Your task to perform on an android device: open app "WhatsApp Messenger" Image 0: 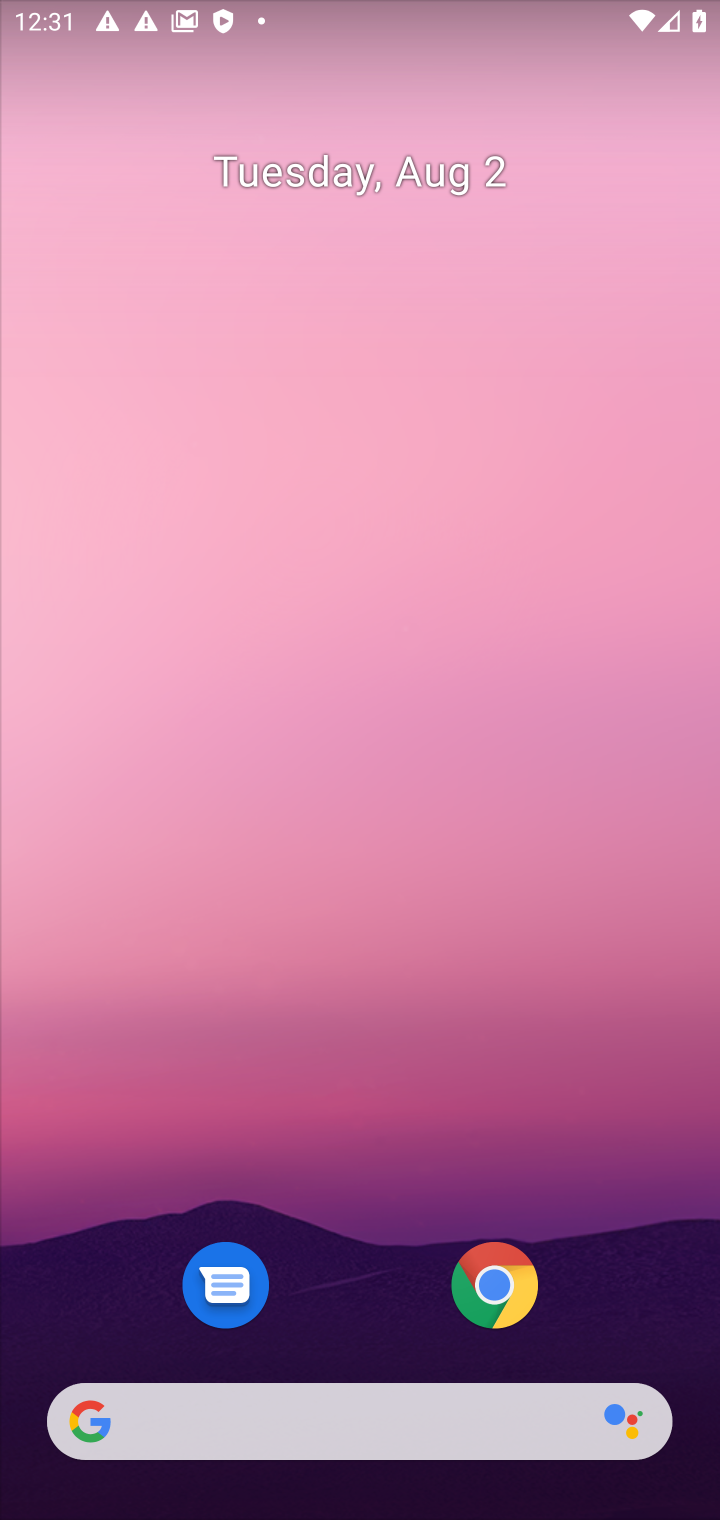
Step 0: drag from (571, 804) to (567, 229)
Your task to perform on an android device: open app "WhatsApp Messenger" Image 1: 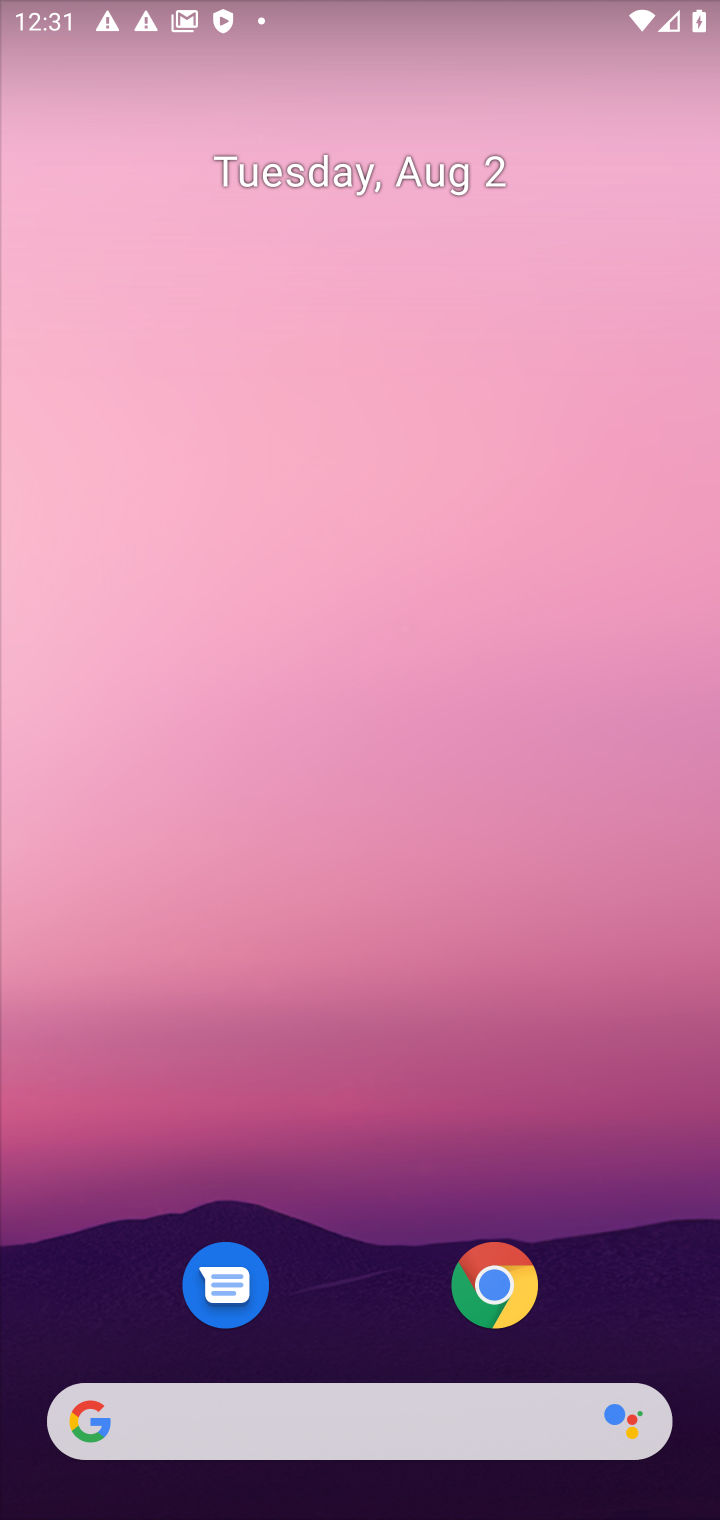
Step 1: drag from (336, 1333) to (319, 330)
Your task to perform on an android device: open app "WhatsApp Messenger" Image 2: 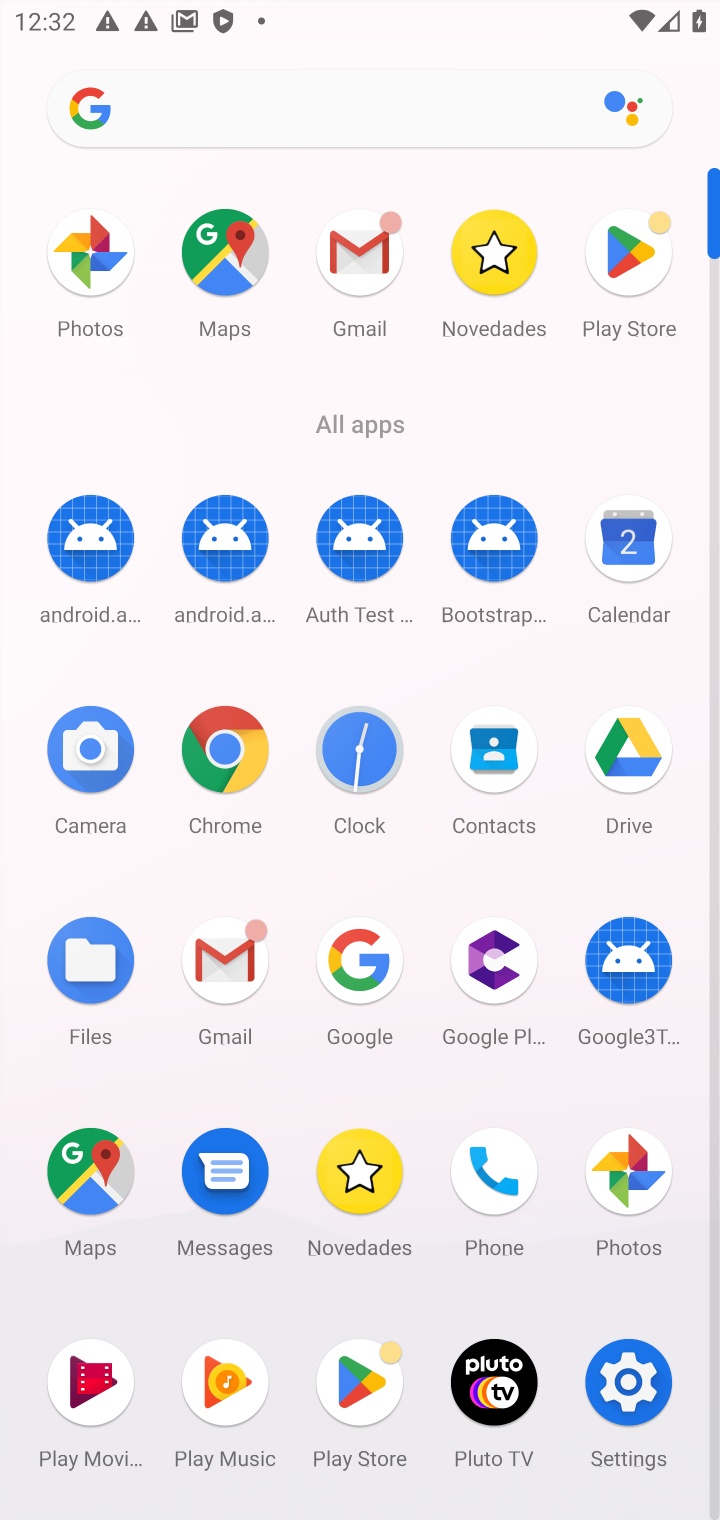
Step 2: click (369, 1394)
Your task to perform on an android device: open app "WhatsApp Messenger" Image 3: 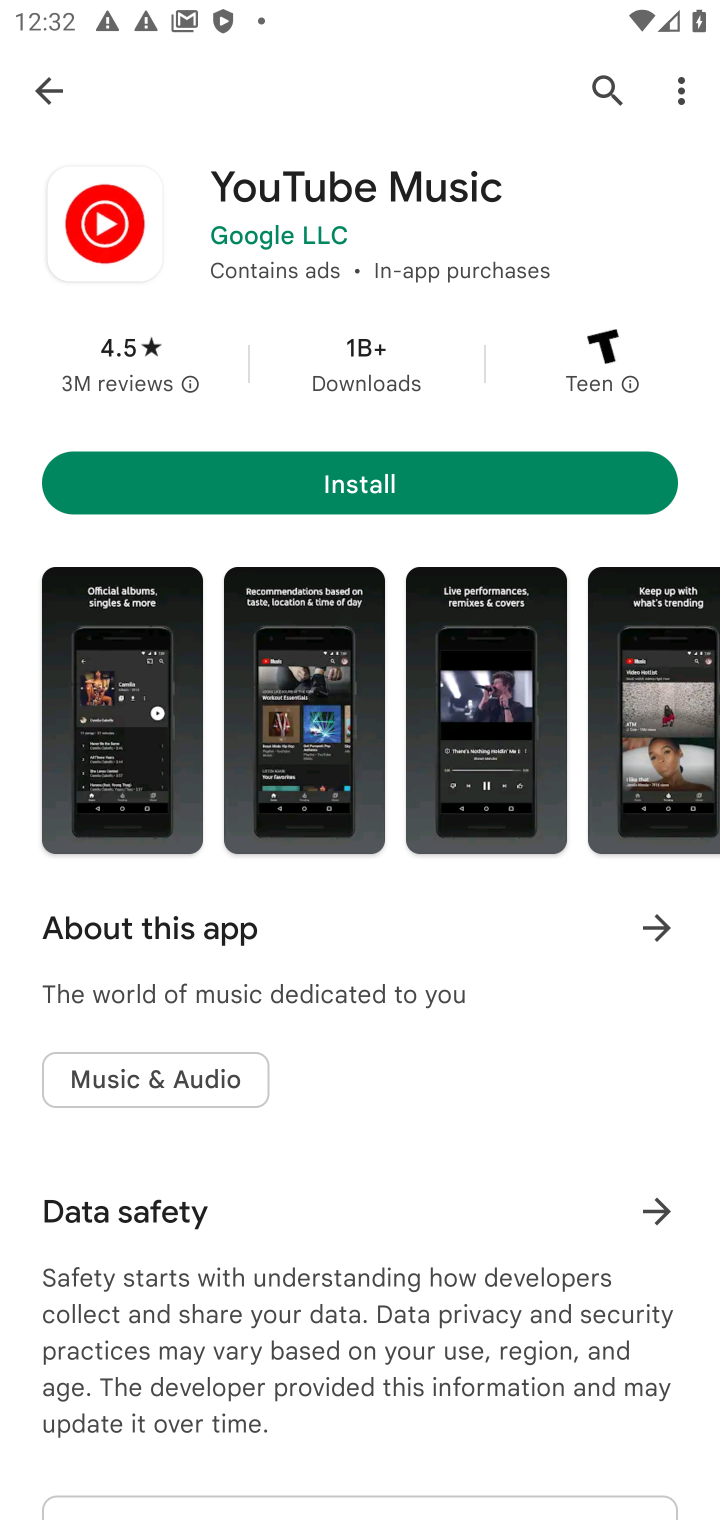
Step 3: click (606, 78)
Your task to perform on an android device: open app "WhatsApp Messenger" Image 4: 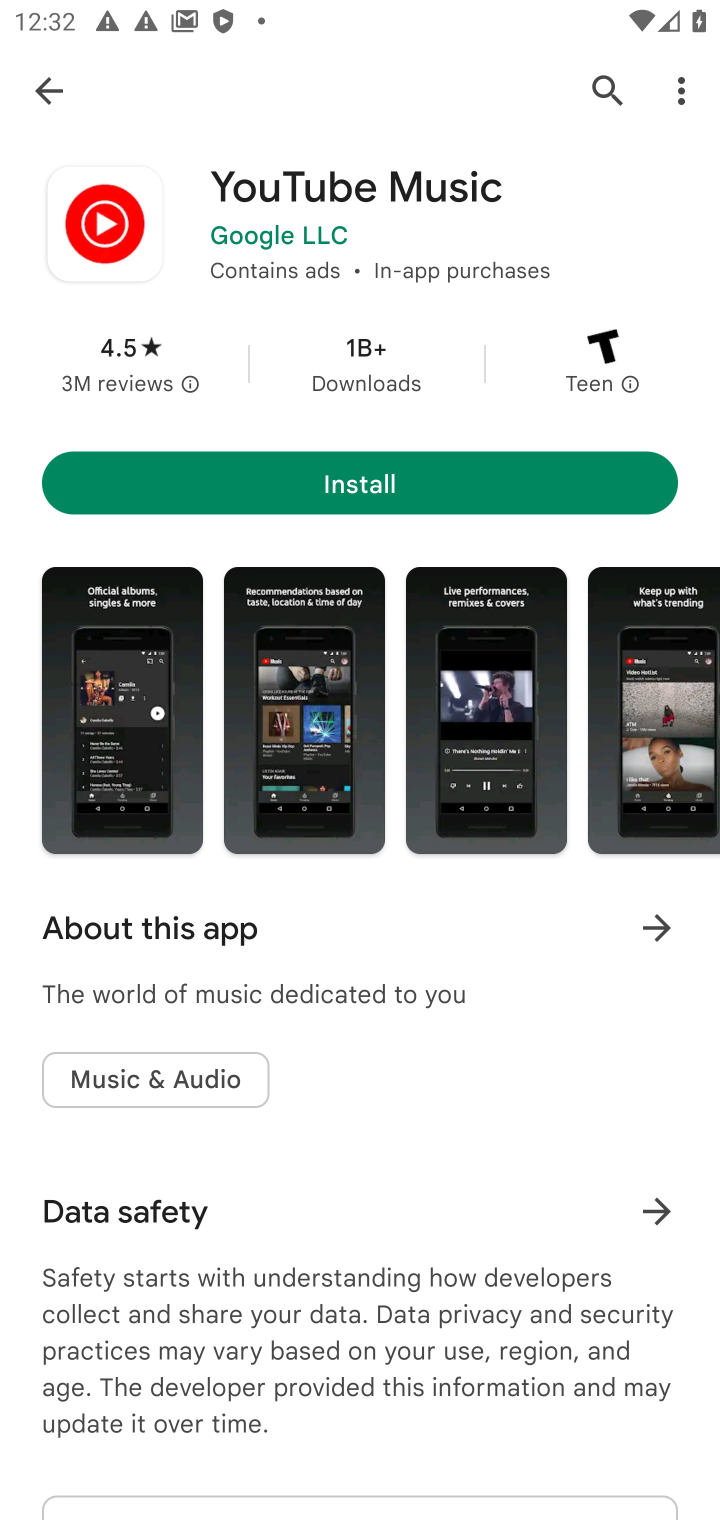
Step 4: click (585, 77)
Your task to perform on an android device: open app "WhatsApp Messenger" Image 5: 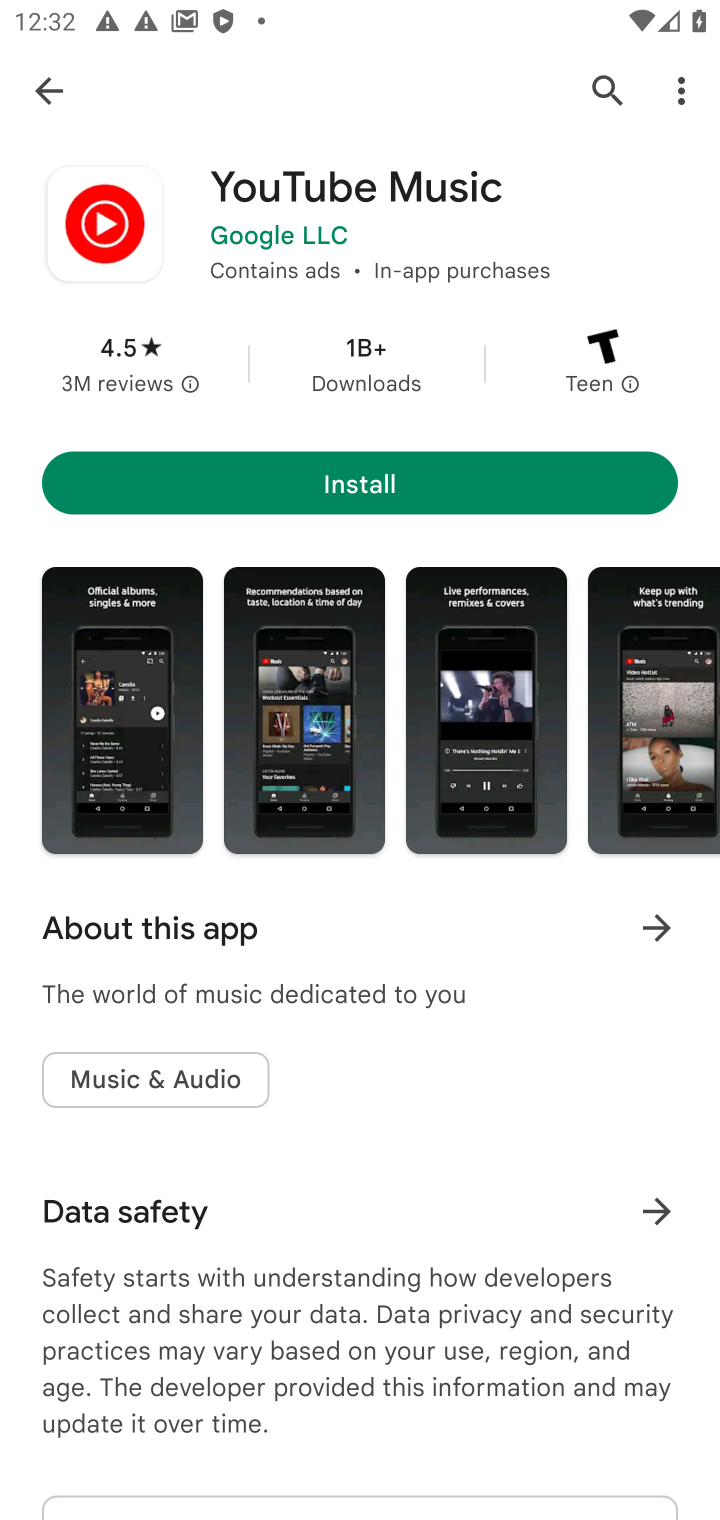
Step 5: press back button
Your task to perform on an android device: open app "WhatsApp Messenger" Image 6: 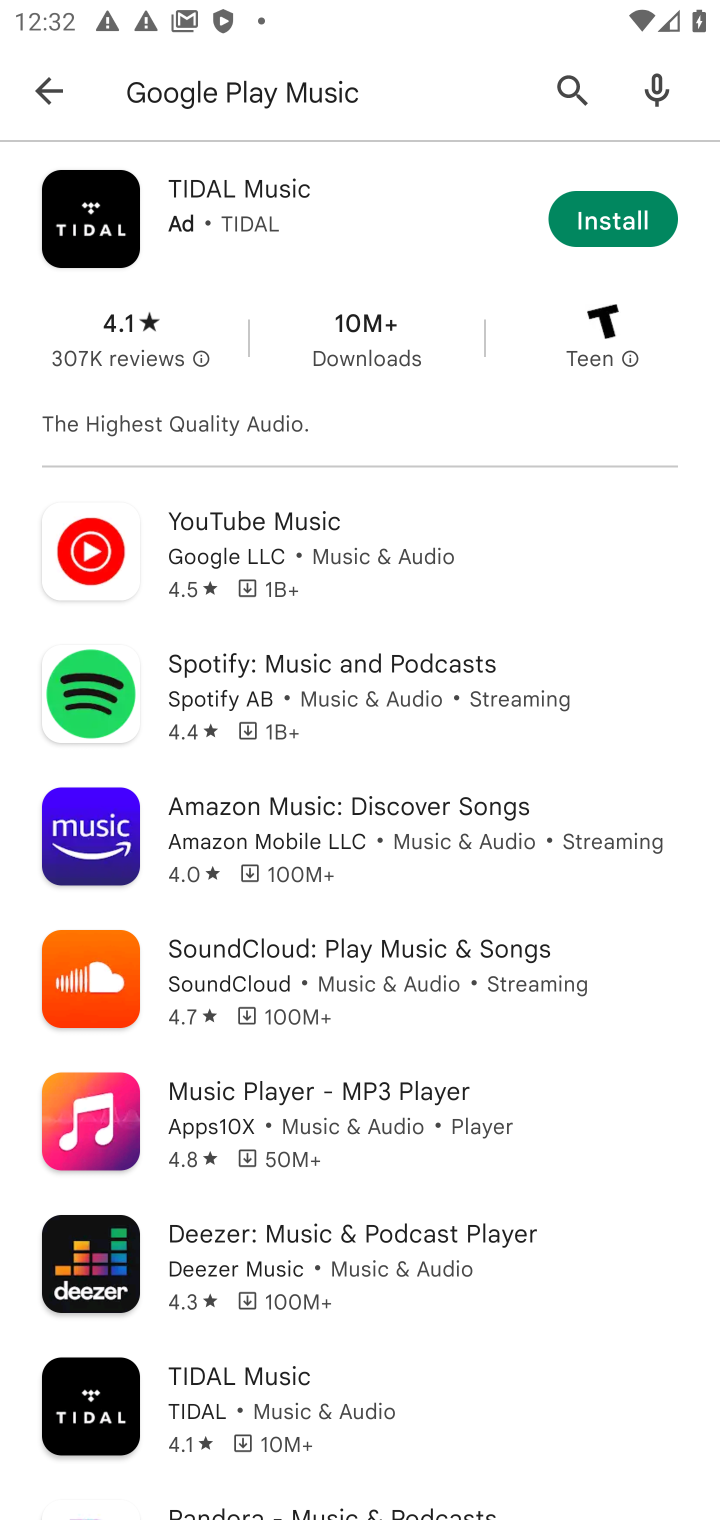
Step 6: click (346, 87)
Your task to perform on an android device: open app "WhatsApp Messenger" Image 7: 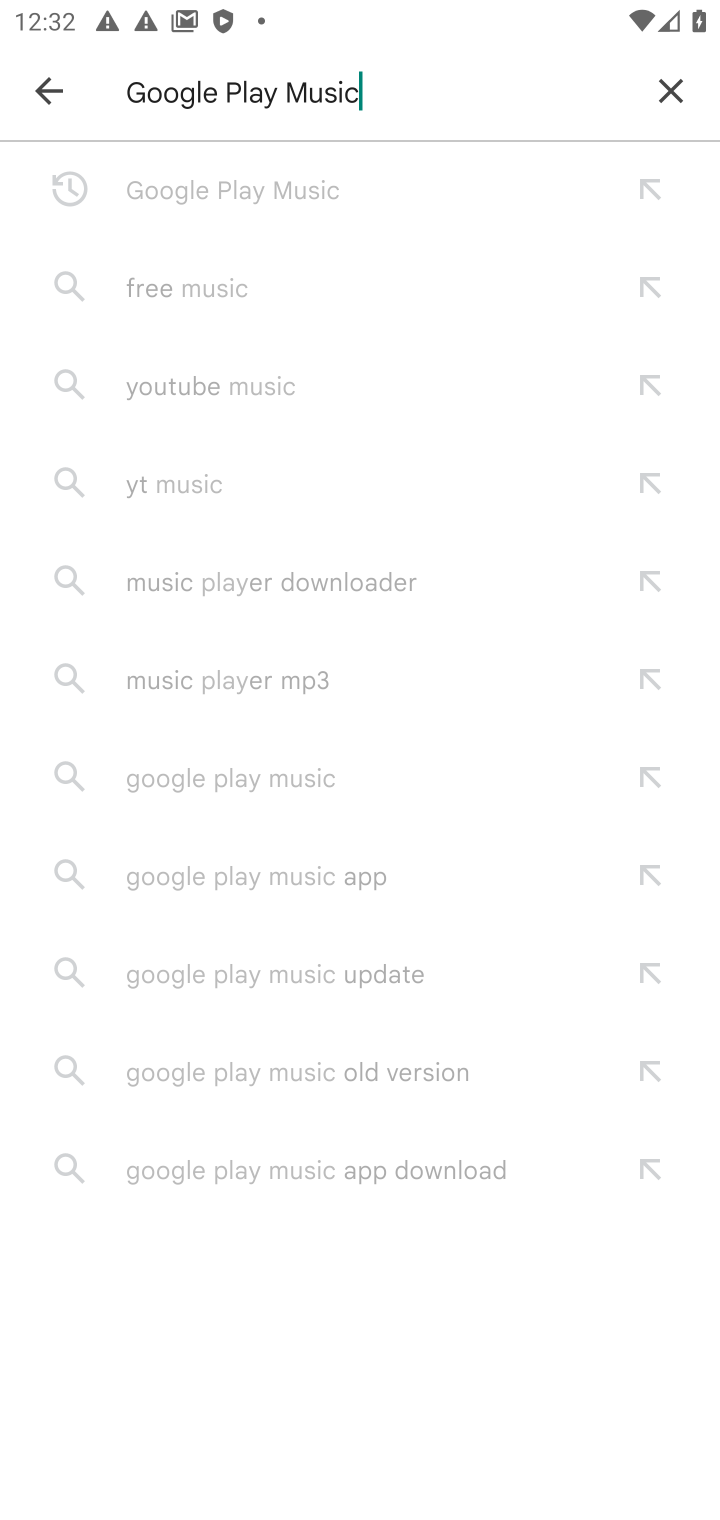
Step 7: click (657, 81)
Your task to perform on an android device: open app "WhatsApp Messenger" Image 8: 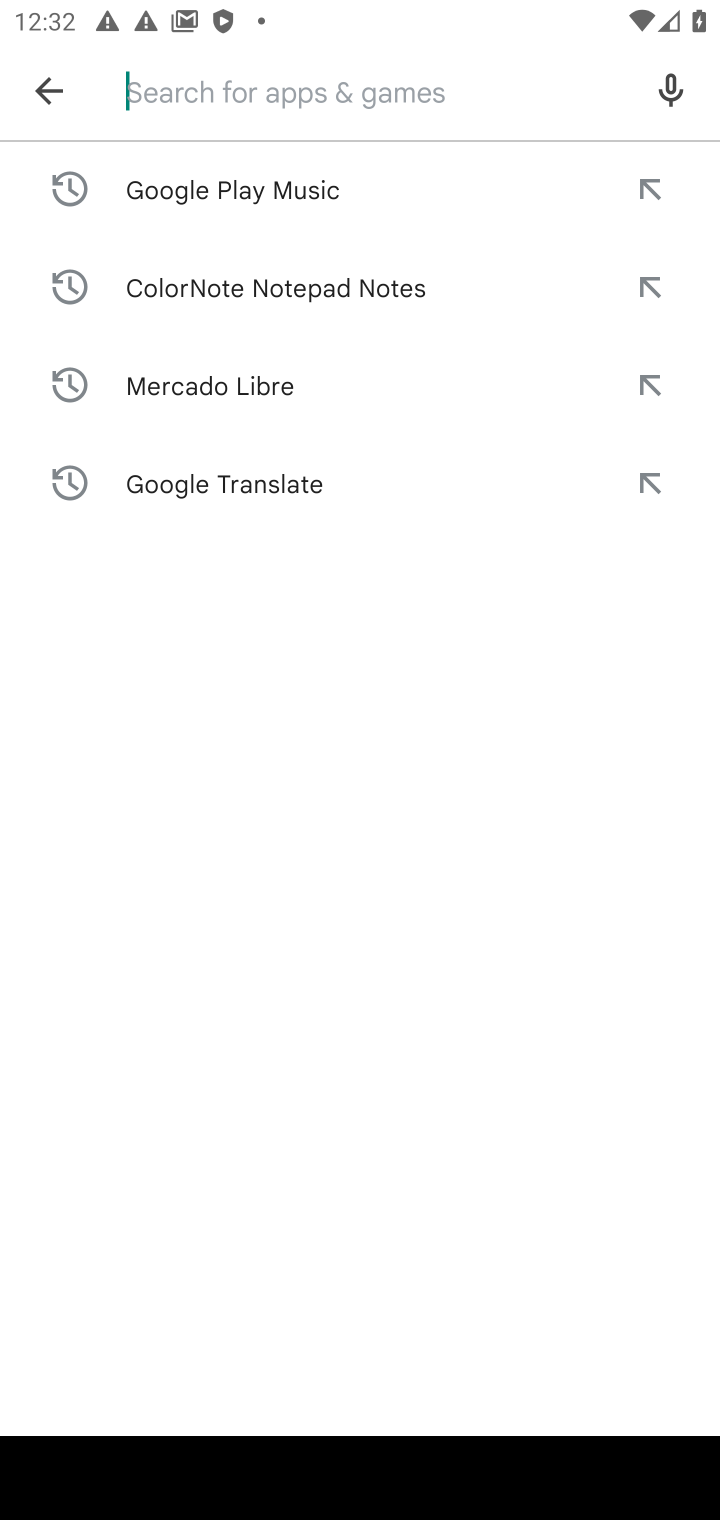
Step 8: type "WhatsApp Messenger"
Your task to perform on an android device: open app "WhatsApp Messenger" Image 9: 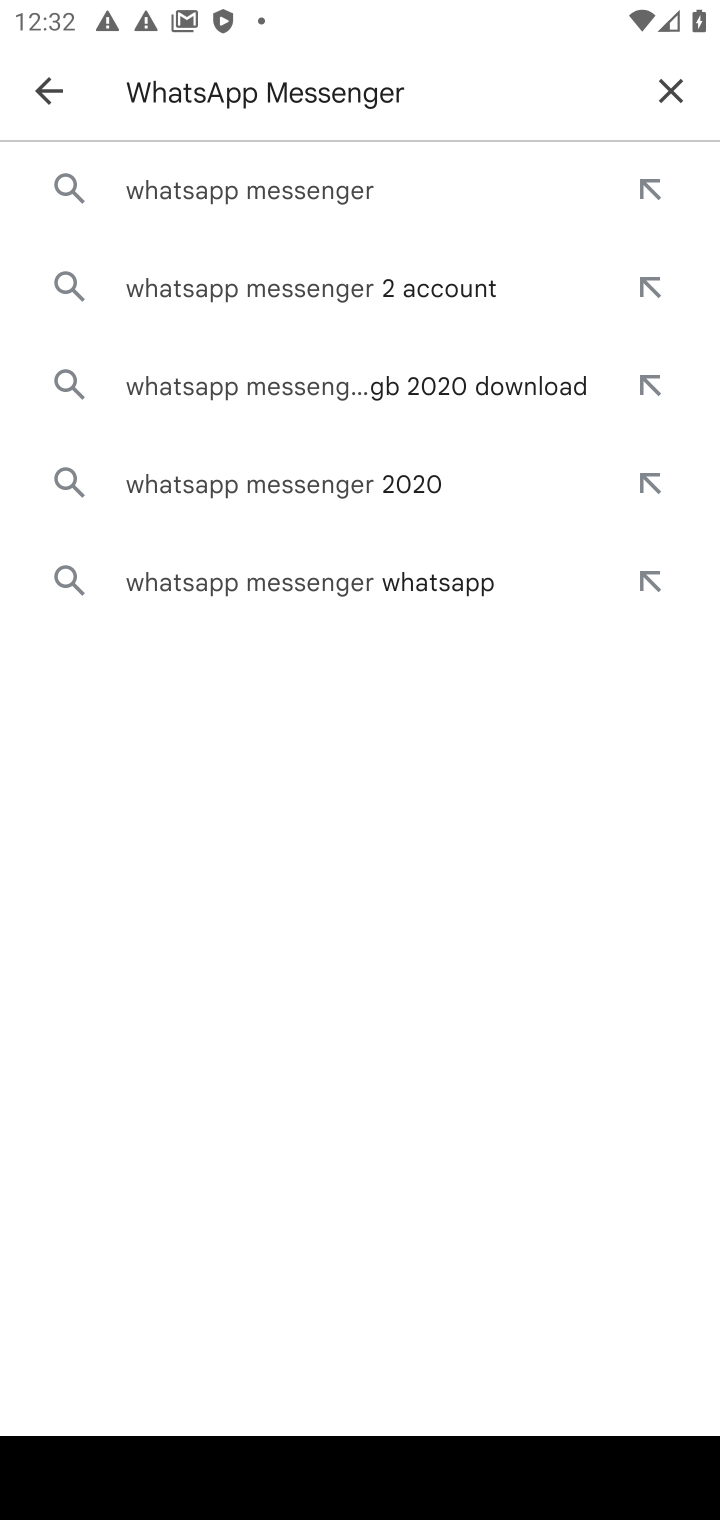
Step 9: press enter
Your task to perform on an android device: open app "WhatsApp Messenger" Image 10: 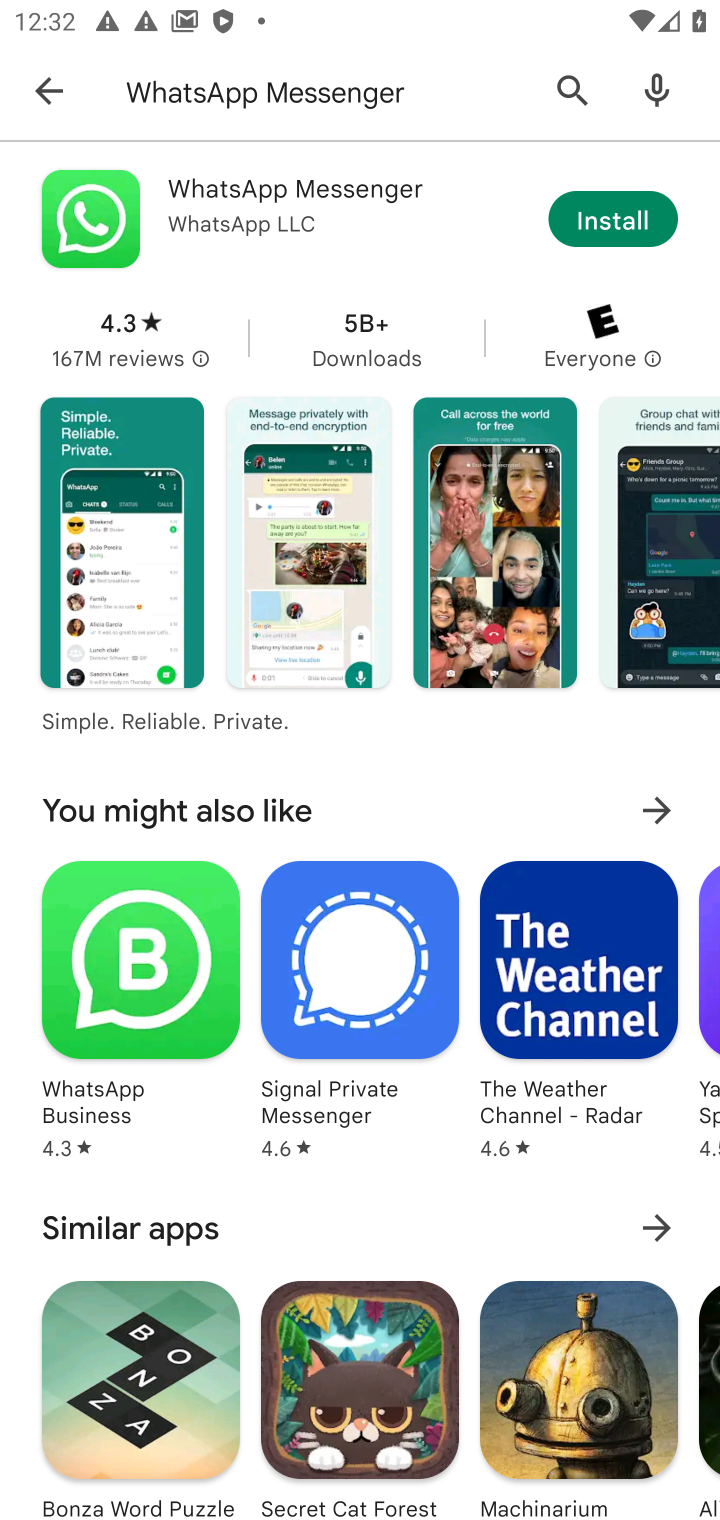
Step 10: task complete